Your task to perform on an android device: remove spam from my inbox in the gmail app Image 0: 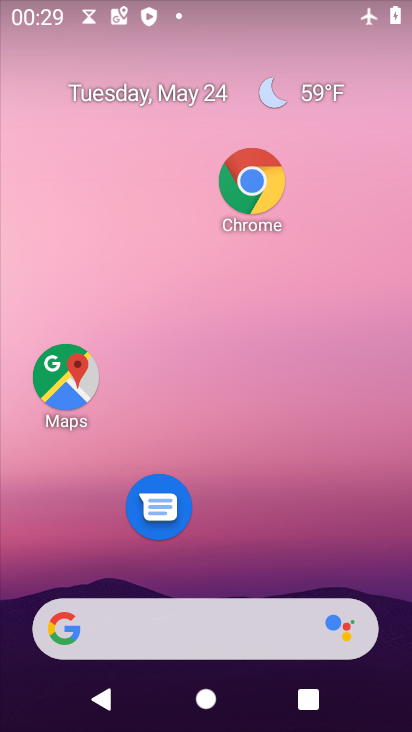
Step 0: drag from (306, 470) to (326, 258)
Your task to perform on an android device: remove spam from my inbox in the gmail app Image 1: 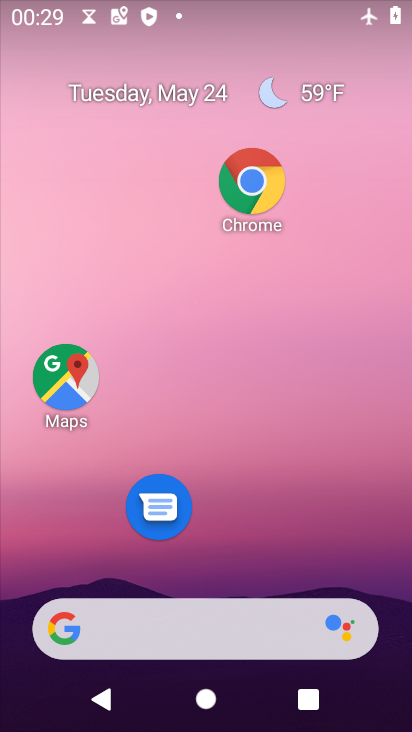
Step 1: drag from (297, 508) to (353, 213)
Your task to perform on an android device: remove spam from my inbox in the gmail app Image 2: 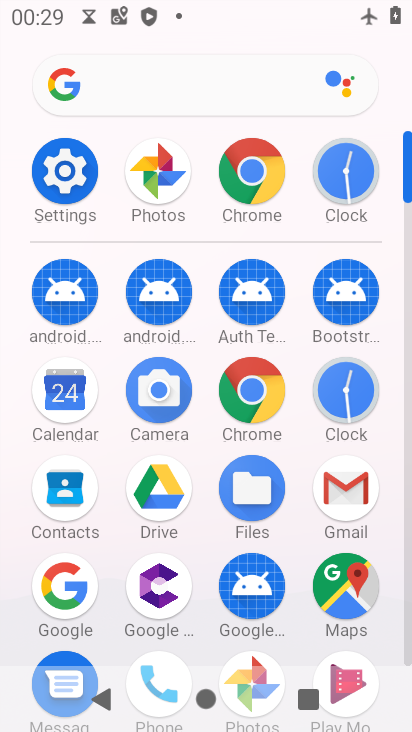
Step 2: click (250, 379)
Your task to perform on an android device: remove spam from my inbox in the gmail app Image 3: 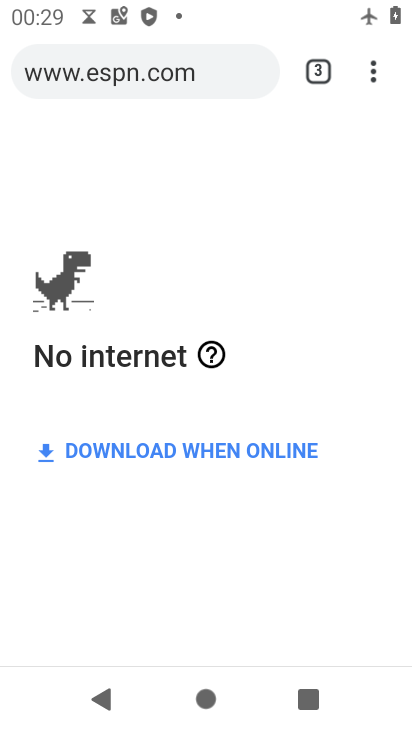
Step 3: press home button
Your task to perform on an android device: remove spam from my inbox in the gmail app Image 4: 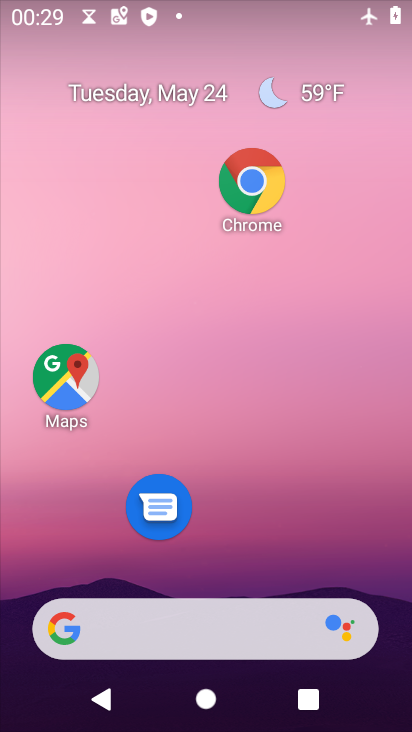
Step 4: drag from (277, 456) to (343, 180)
Your task to perform on an android device: remove spam from my inbox in the gmail app Image 5: 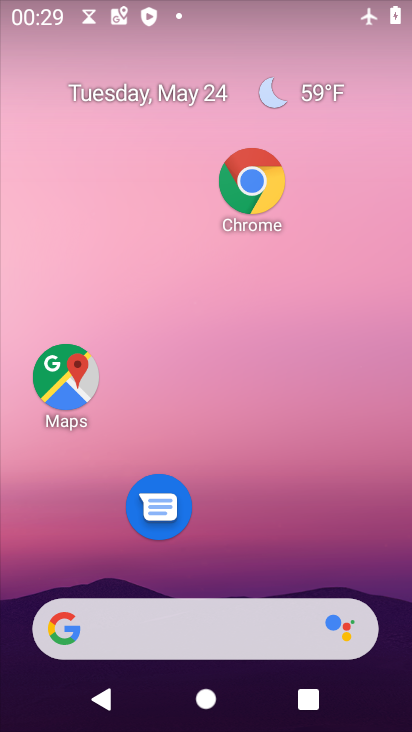
Step 5: drag from (348, 457) to (395, 96)
Your task to perform on an android device: remove spam from my inbox in the gmail app Image 6: 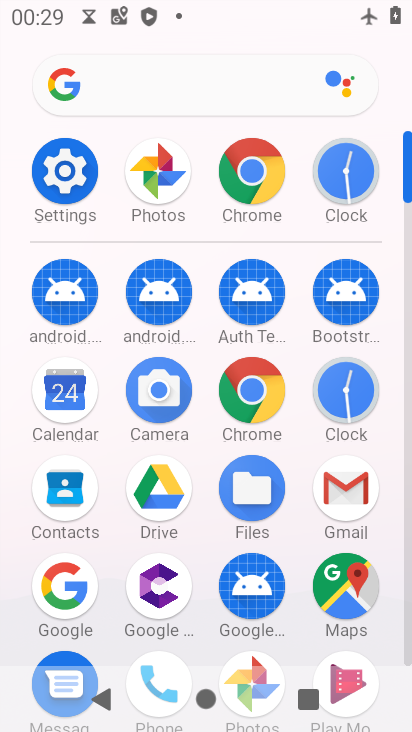
Step 6: drag from (309, 586) to (347, 244)
Your task to perform on an android device: remove spam from my inbox in the gmail app Image 7: 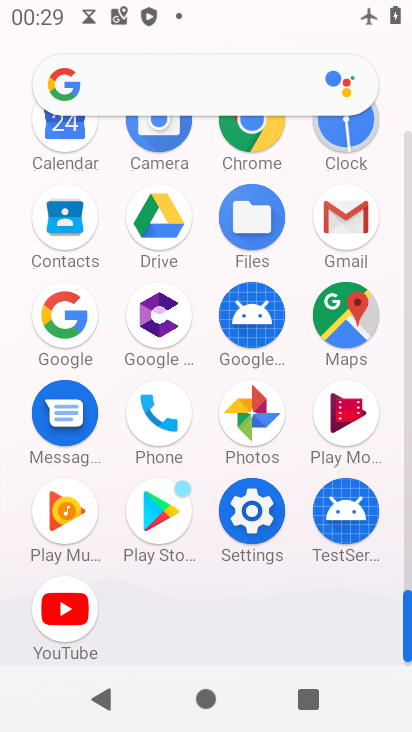
Step 7: click (355, 190)
Your task to perform on an android device: remove spam from my inbox in the gmail app Image 8: 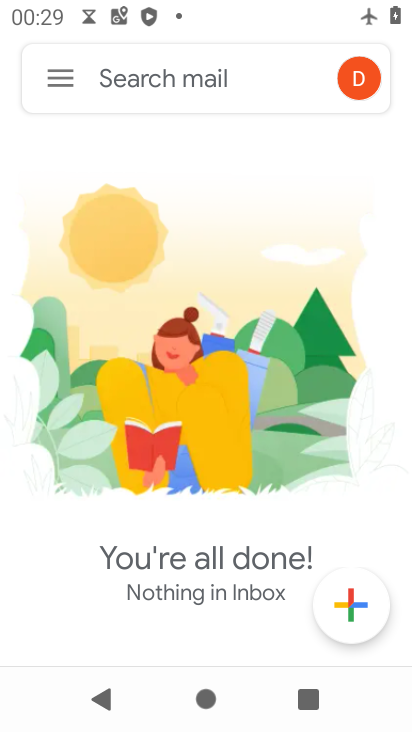
Step 8: click (53, 64)
Your task to perform on an android device: remove spam from my inbox in the gmail app Image 9: 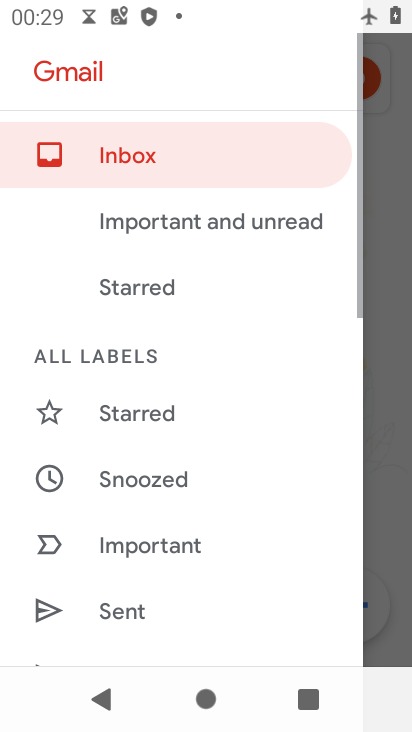
Step 9: drag from (179, 556) to (263, 182)
Your task to perform on an android device: remove spam from my inbox in the gmail app Image 10: 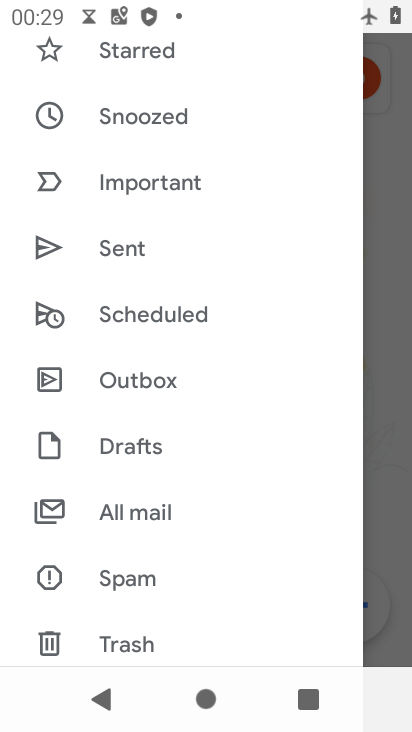
Step 10: click (168, 571)
Your task to perform on an android device: remove spam from my inbox in the gmail app Image 11: 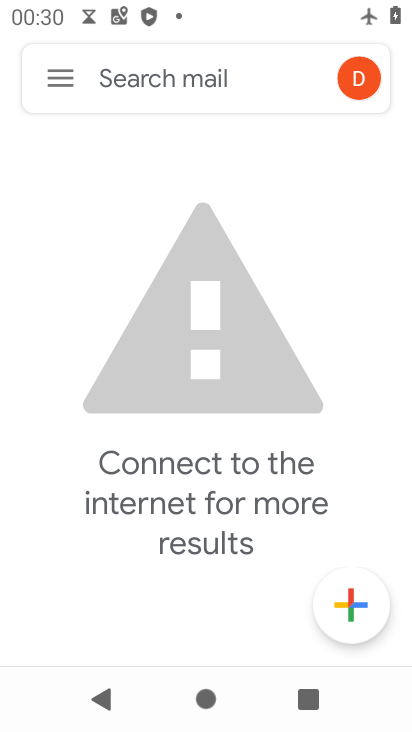
Step 11: task complete